Your task to perform on an android device: delete the emails in spam in the gmail app Image 0: 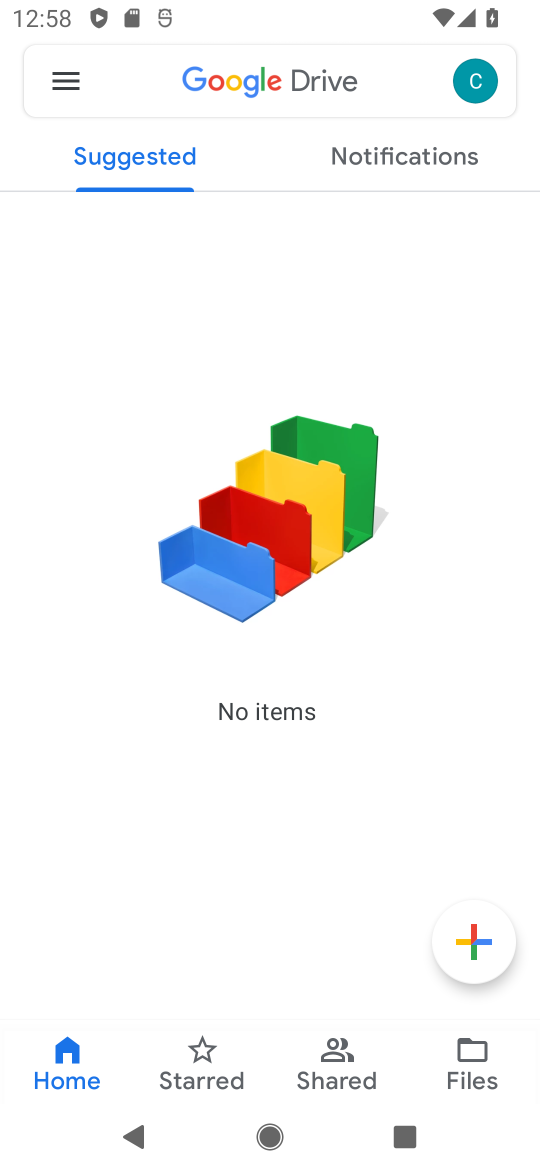
Step 0: press back button
Your task to perform on an android device: delete the emails in spam in the gmail app Image 1: 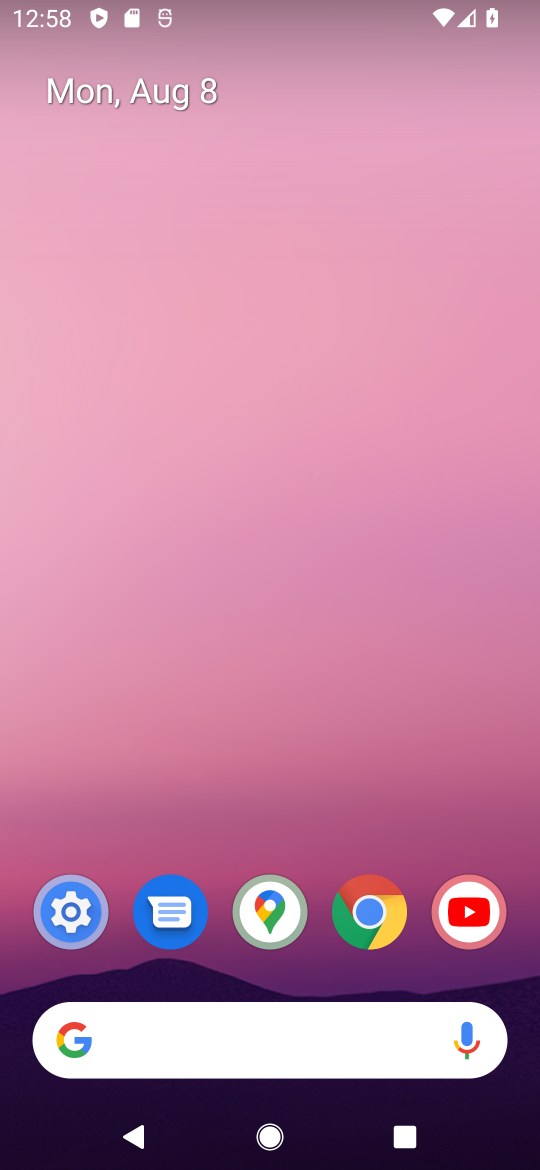
Step 1: drag from (283, 807) to (477, 40)
Your task to perform on an android device: delete the emails in spam in the gmail app Image 2: 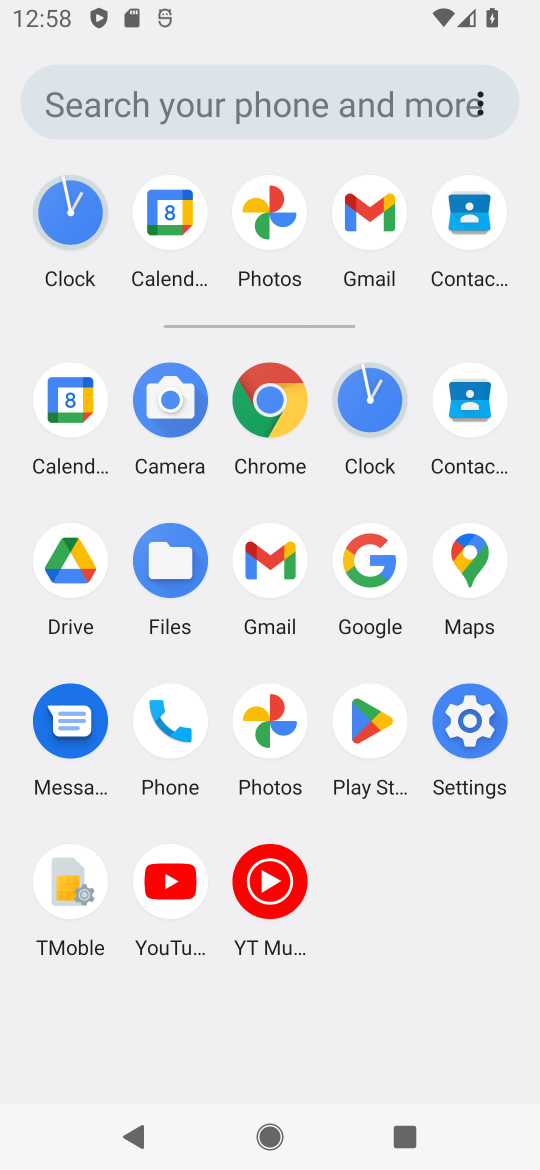
Step 2: click (380, 206)
Your task to perform on an android device: delete the emails in spam in the gmail app Image 3: 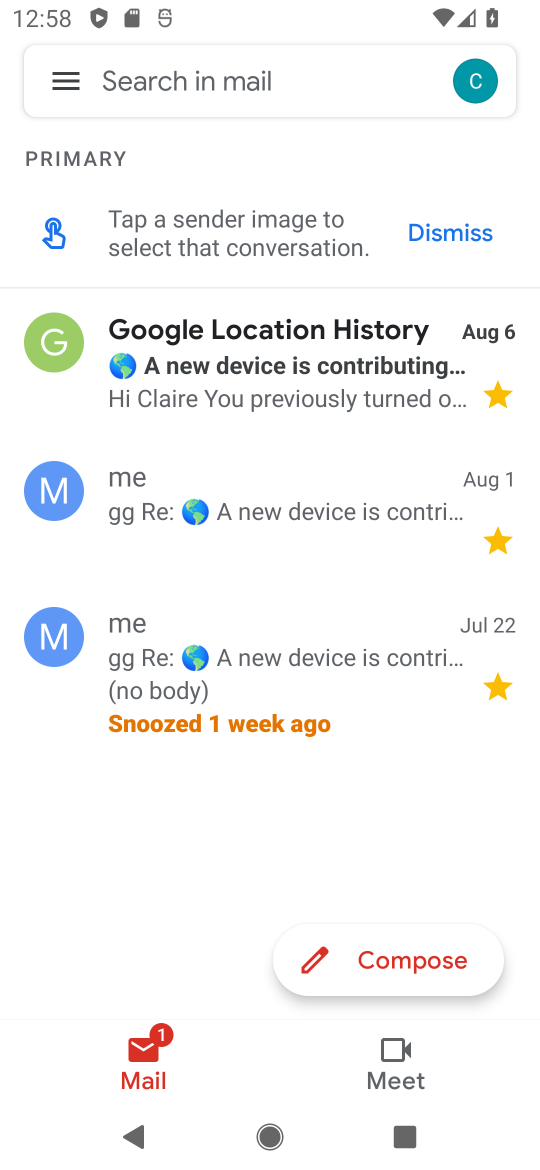
Step 3: click (57, 72)
Your task to perform on an android device: delete the emails in spam in the gmail app Image 4: 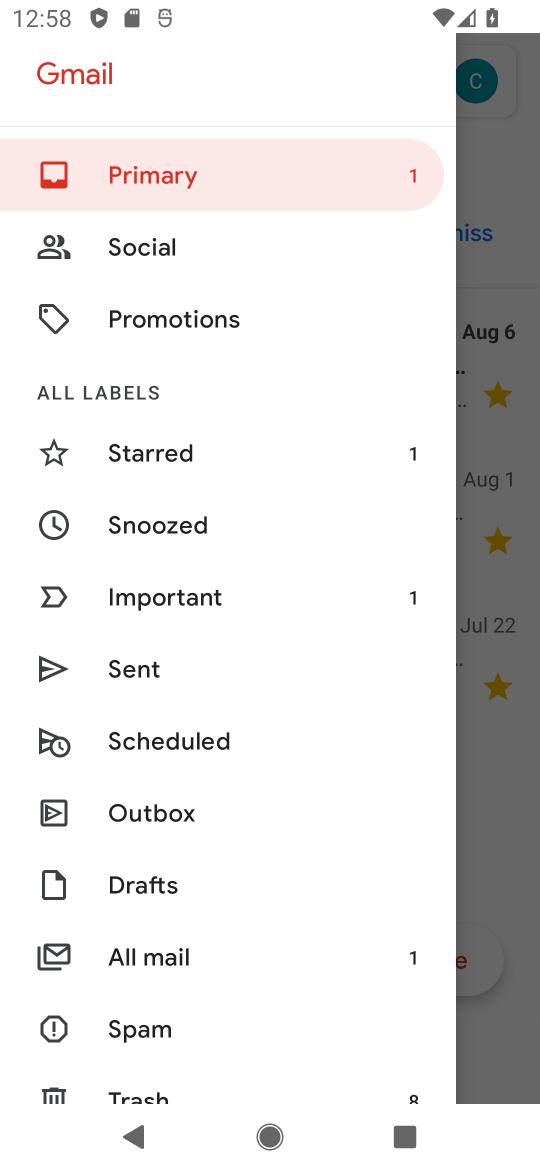
Step 4: click (155, 1021)
Your task to perform on an android device: delete the emails in spam in the gmail app Image 5: 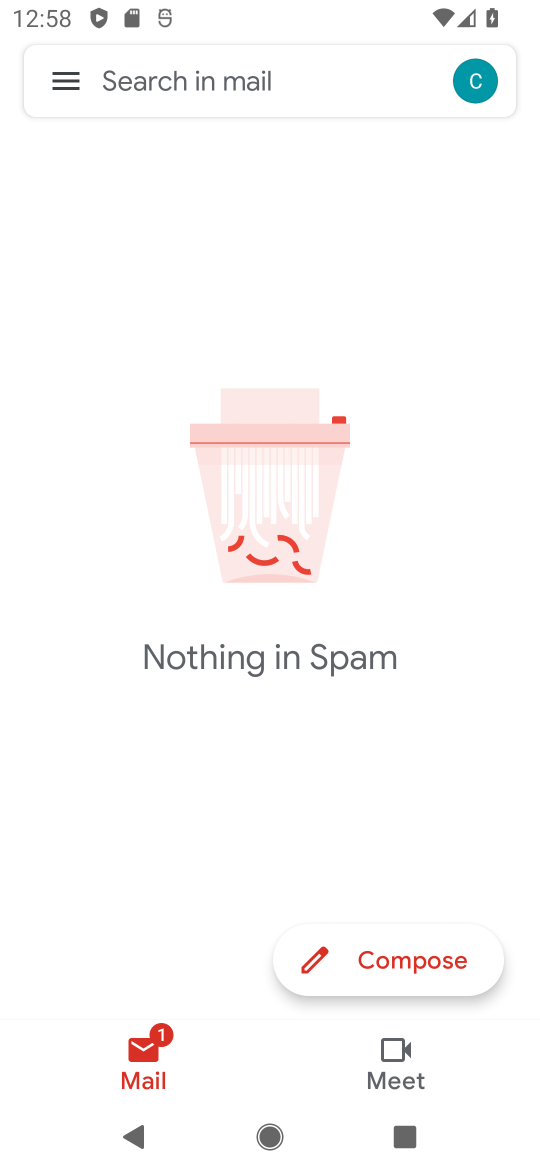
Step 5: task complete